Your task to perform on an android device: View the shopping cart on newegg.com. Image 0: 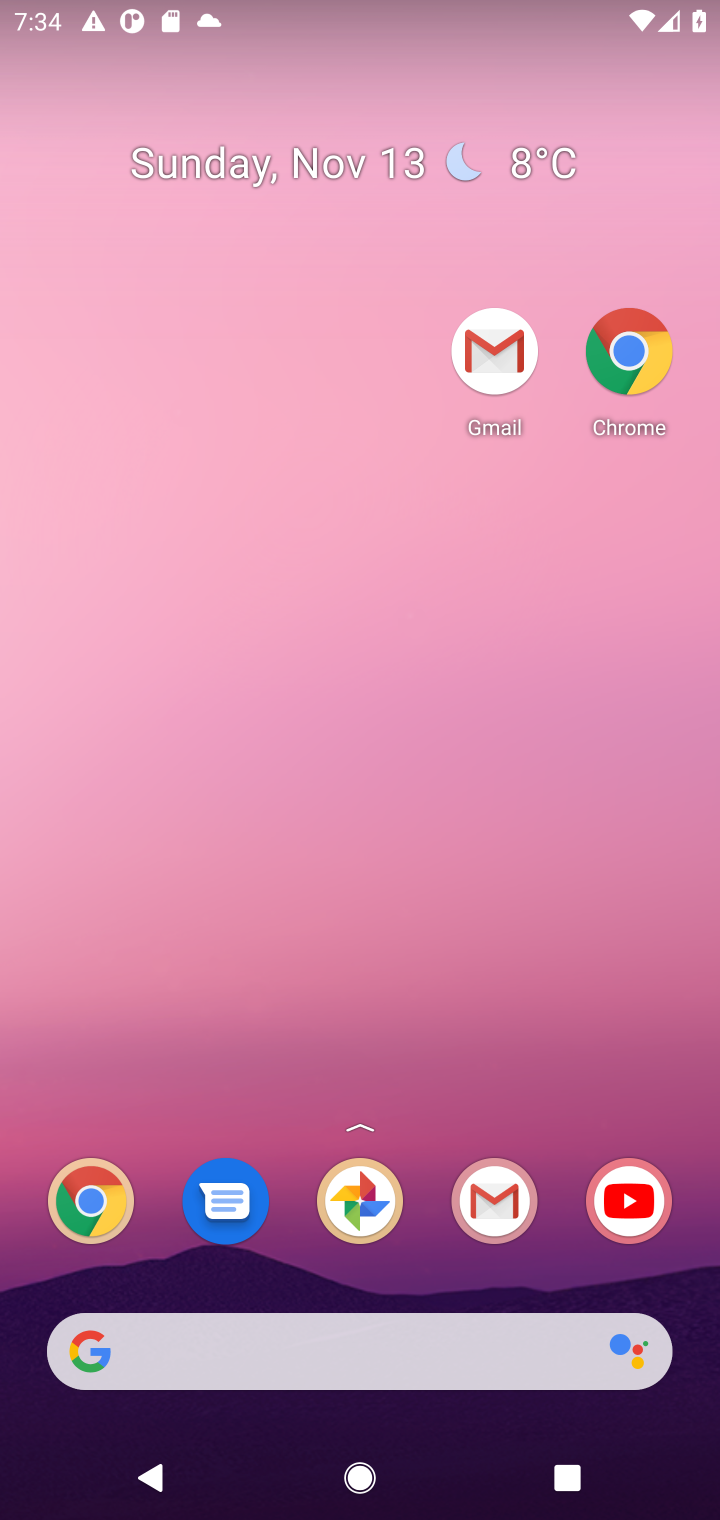
Step 0: drag from (292, 1283) to (120, 365)
Your task to perform on an android device: View the shopping cart on newegg.com. Image 1: 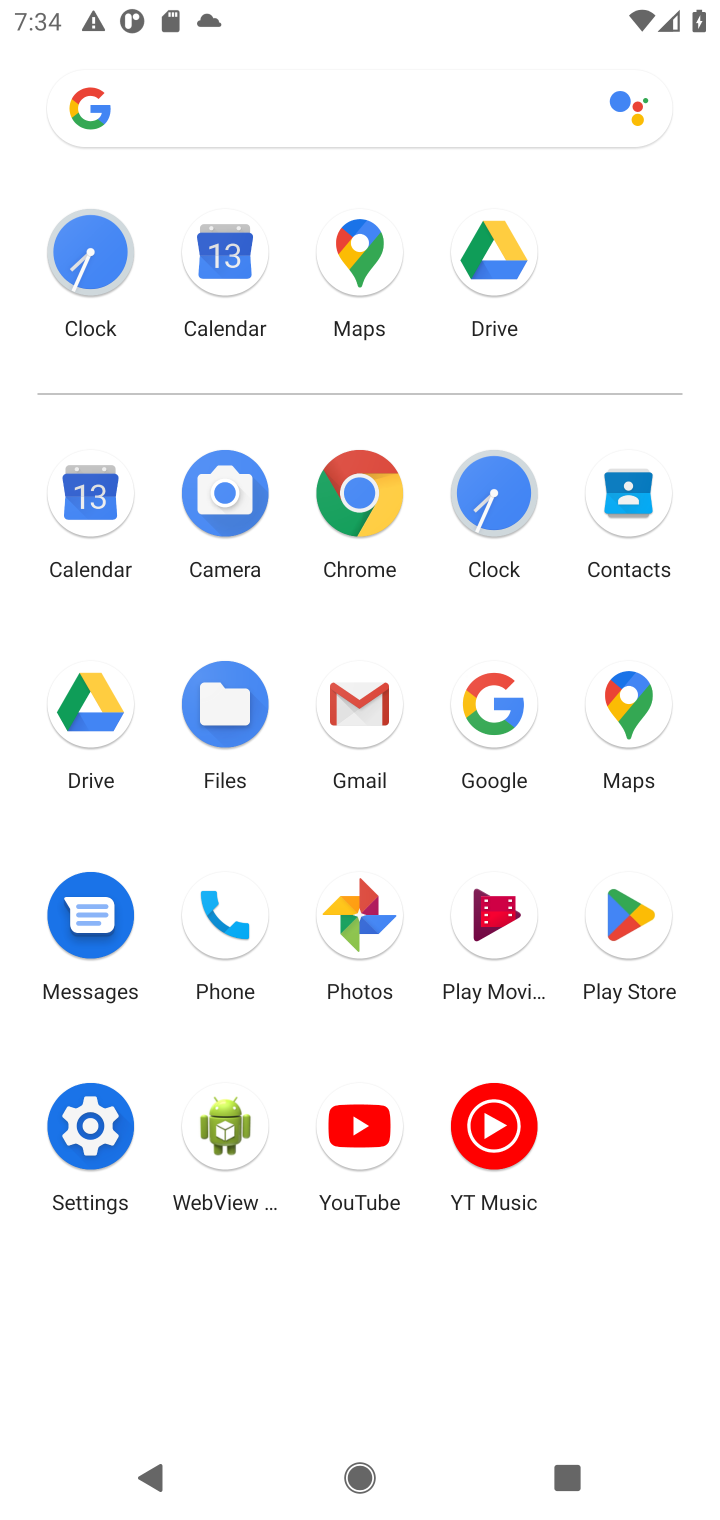
Step 1: click (349, 495)
Your task to perform on an android device: View the shopping cart on newegg.com. Image 2: 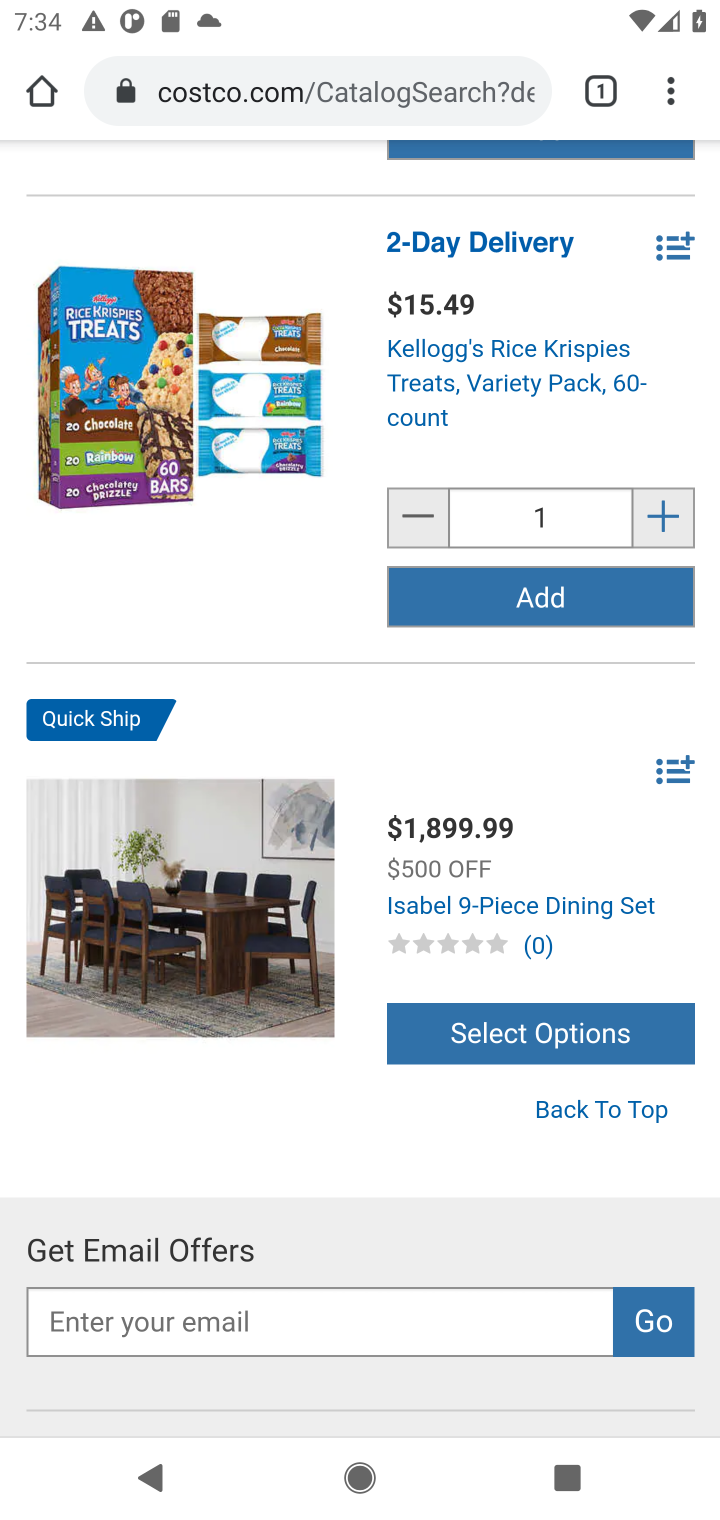
Step 2: click (429, 83)
Your task to perform on an android device: View the shopping cart on newegg.com. Image 3: 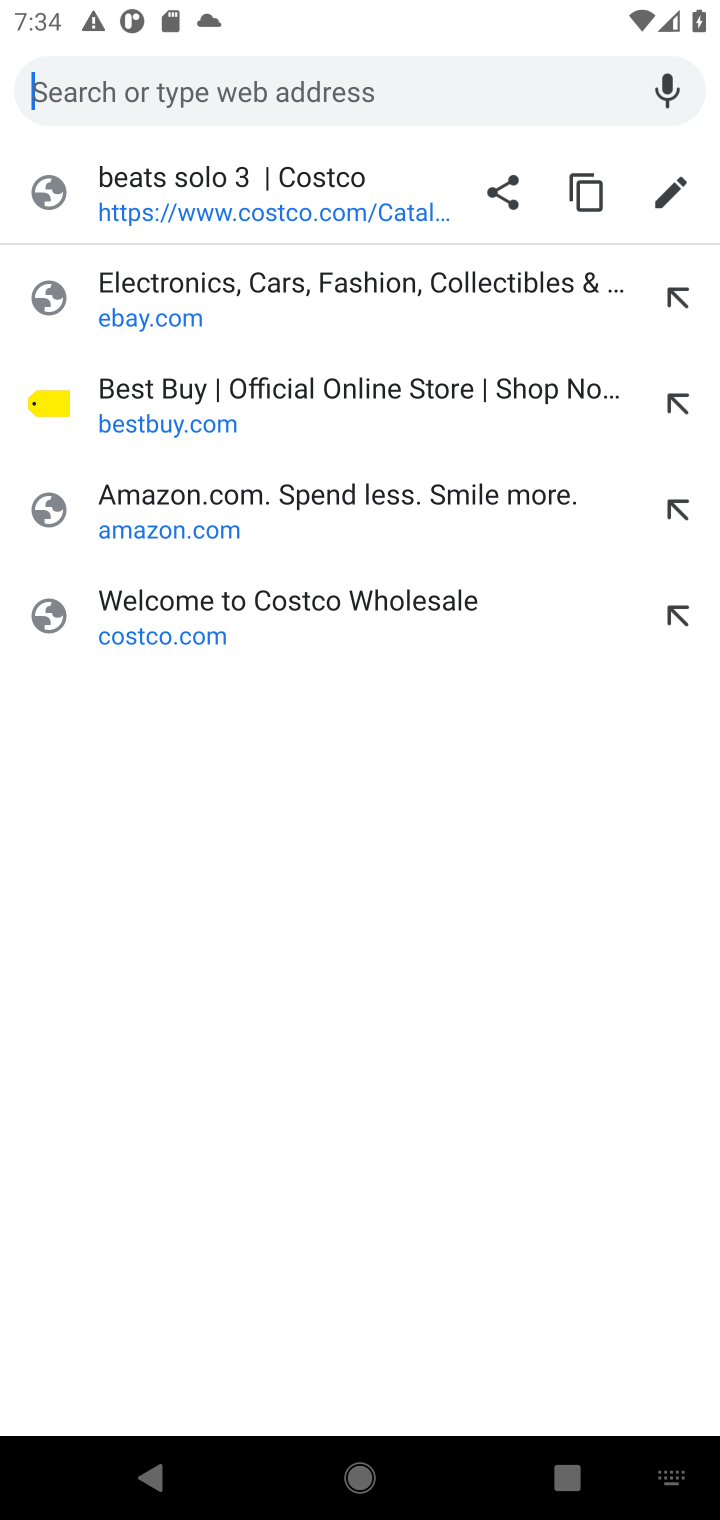
Step 3: type "newegg.com"
Your task to perform on an android device: View the shopping cart on newegg.com. Image 4: 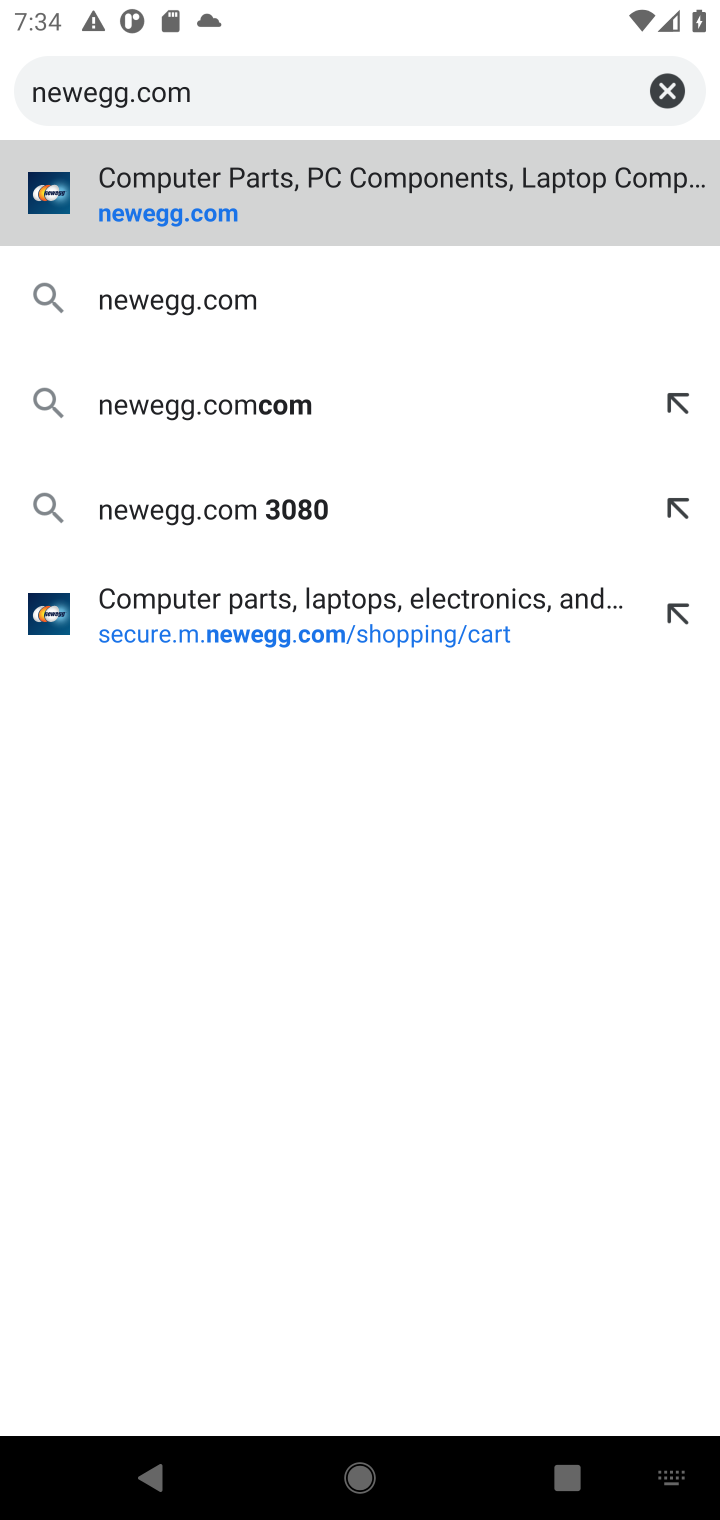
Step 4: press enter
Your task to perform on an android device: View the shopping cart on newegg.com. Image 5: 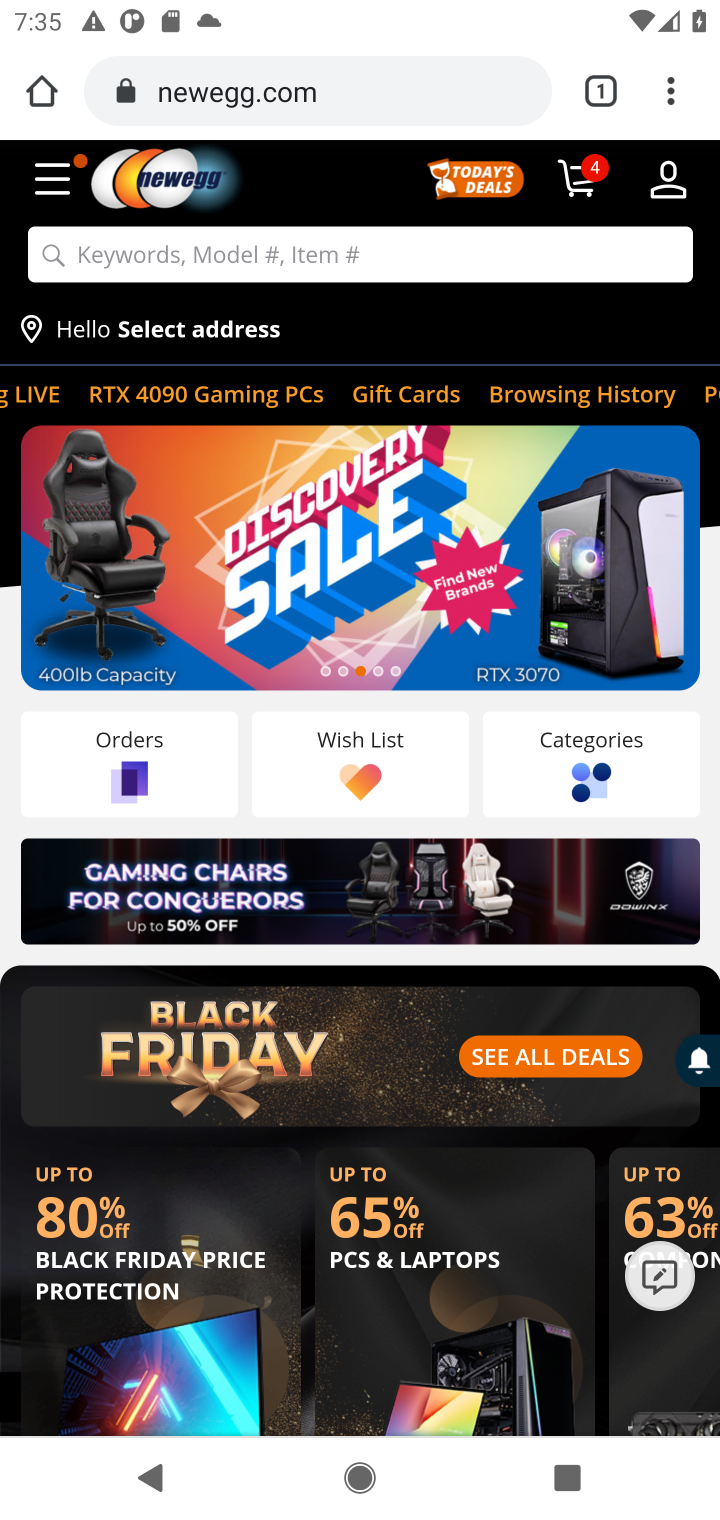
Step 5: click (598, 182)
Your task to perform on an android device: View the shopping cart on newegg.com. Image 6: 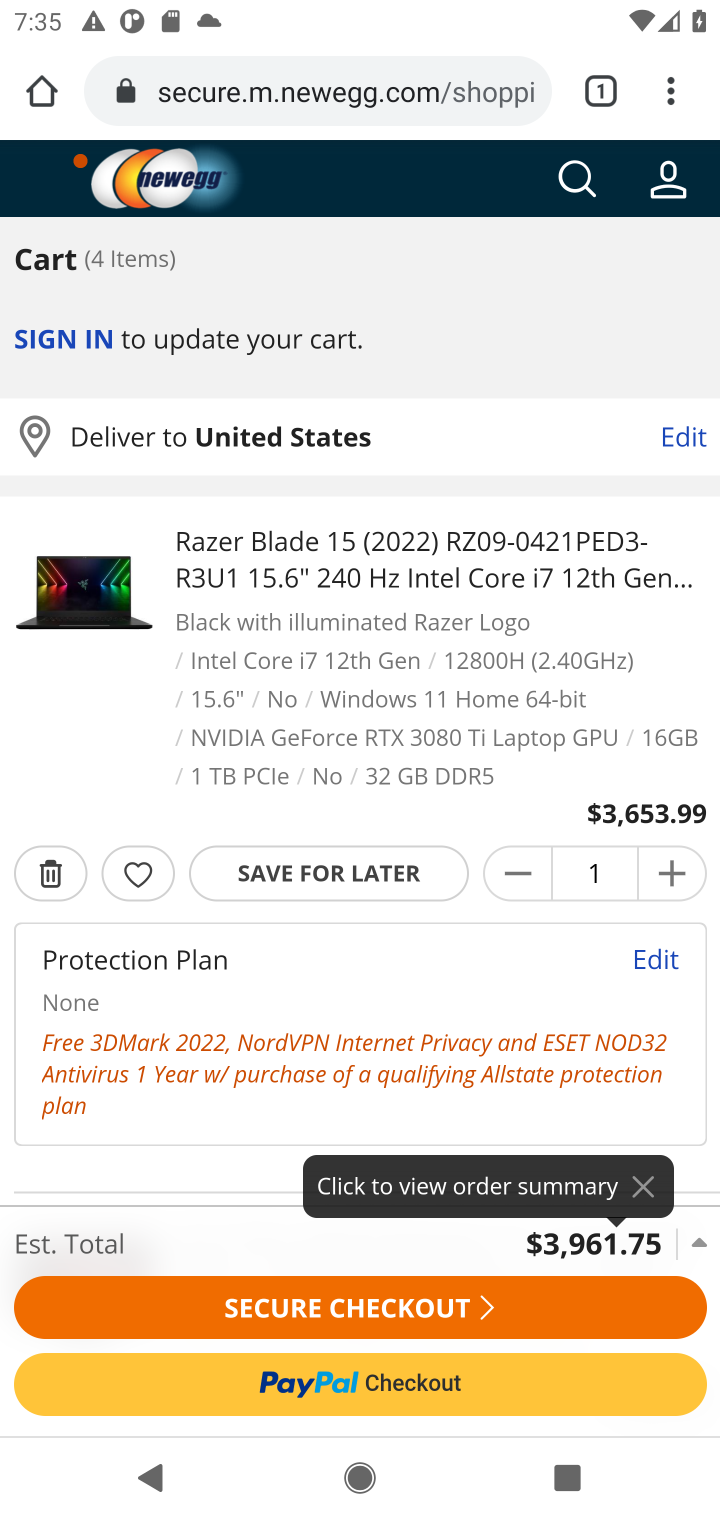
Step 6: task complete